Your task to perform on an android device: Go to CNN.com Image 0: 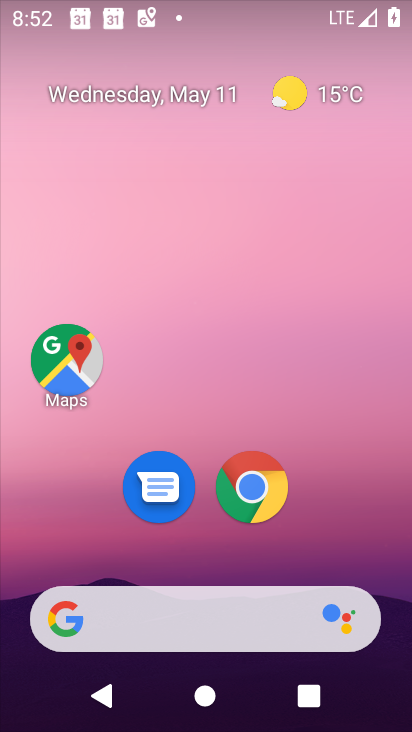
Step 0: drag from (260, 655) to (282, 165)
Your task to perform on an android device: Go to CNN.com Image 1: 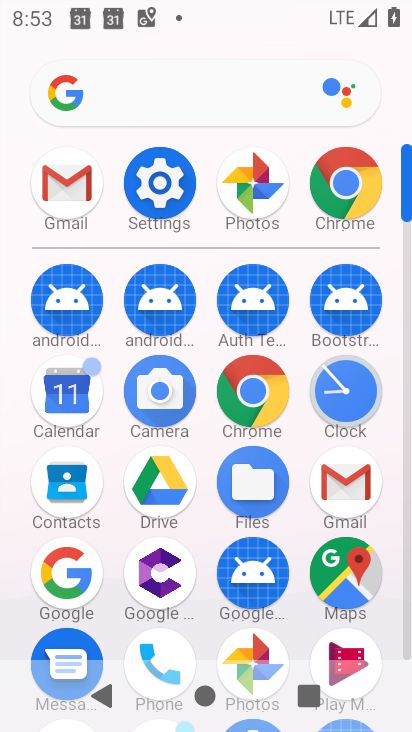
Step 1: click (345, 215)
Your task to perform on an android device: Go to CNN.com Image 2: 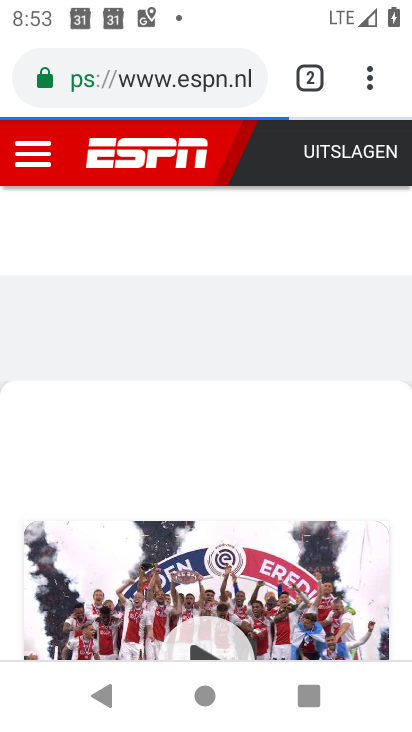
Step 2: click (312, 83)
Your task to perform on an android device: Go to CNN.com Image 3: 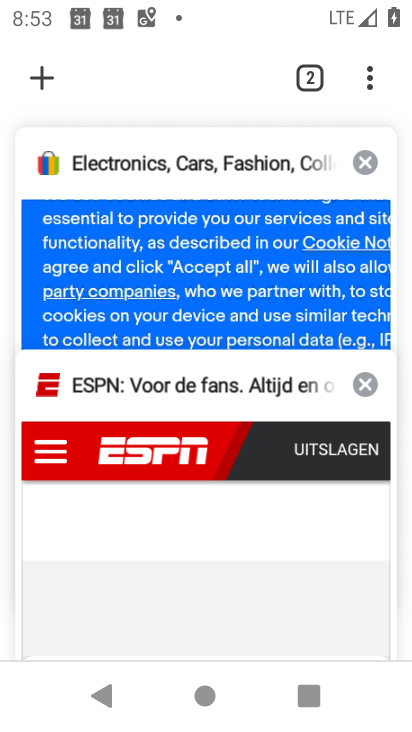
Step 3: click (45, 69)
Your task to perform on an android device: Go to CNN.com Image 4: 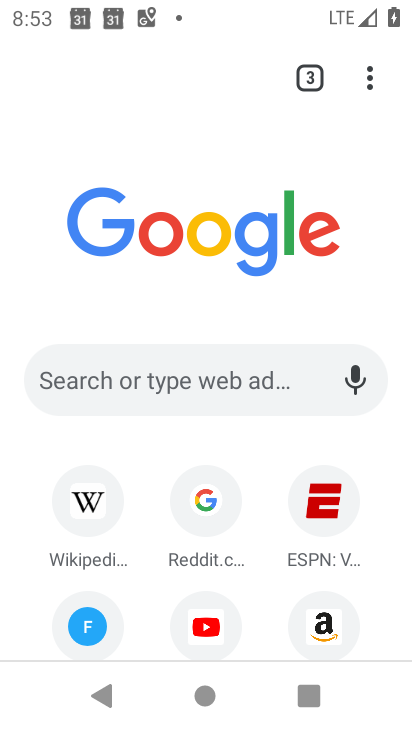
Step 4: click (196, 376)
Your task to perform on an android device: Go to CNN.com Image 5: 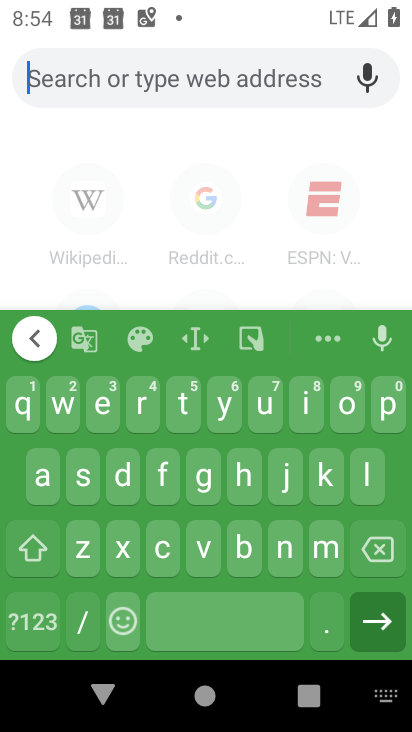
Step 5: click (160, 558)
Your task to perform on an android device: Go to CNN.com Image 6: 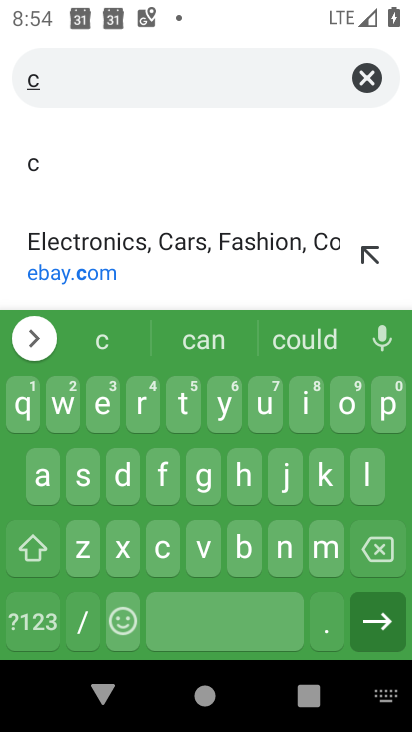
Step 6: click (282, 544)
Your task to perform on an android device: Go to CNN.com Image 7: 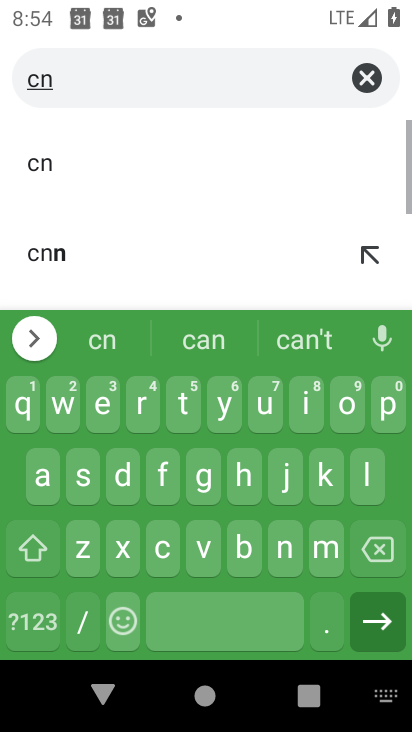
Step 7: click (282, 544)
Your task to perform on an android device: Go to CNN.com Image 8: 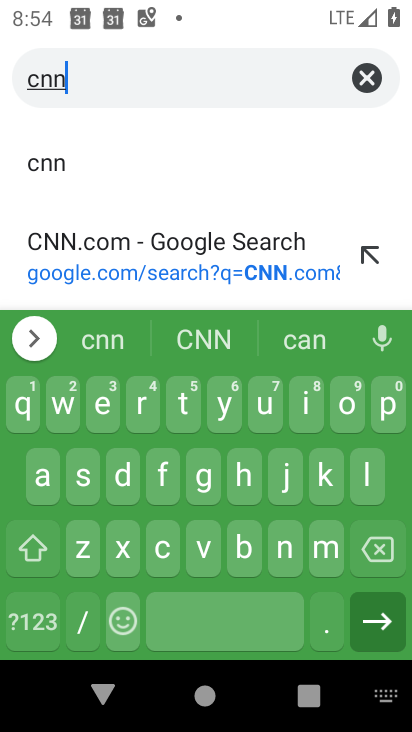
Step 8: click (92, 235)
Your task to perform on an android device: Go to CNN.com Image 9: 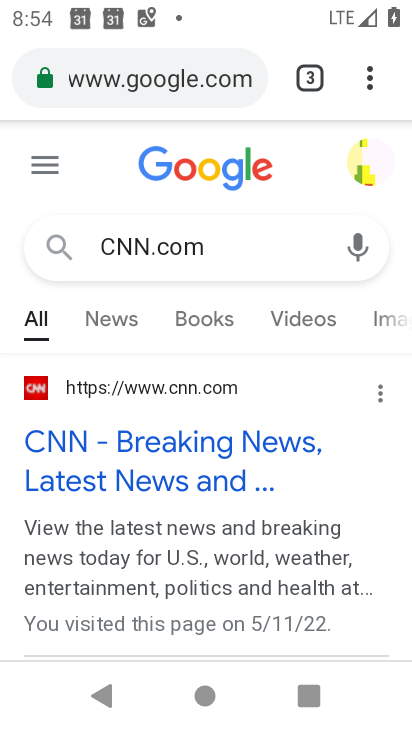
Step 9: click (130, 442)
Your task to perform on an android device: Go to CNN.com Image 10: 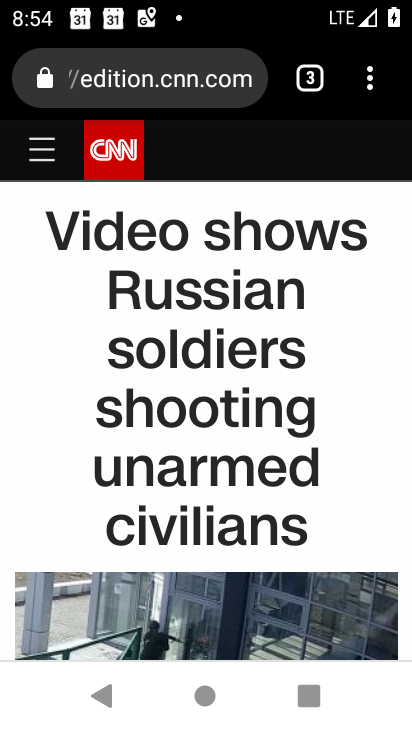
Step 10: task complete